Your task to perform on an android device: open app "Walmart Shopping & Grocery" (install if not already installed) and go to login screen Image 0: 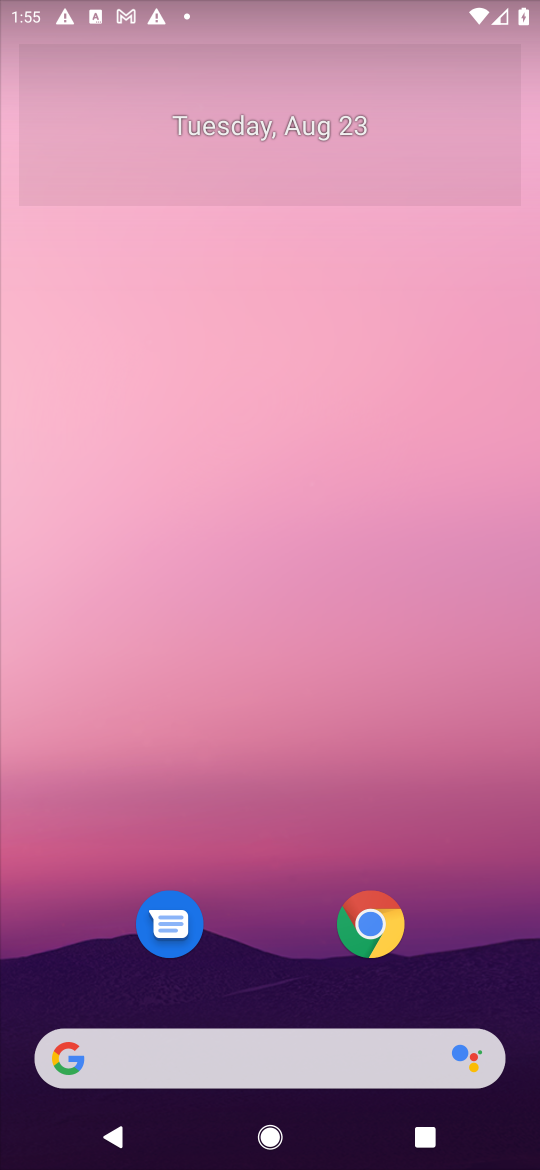
Step 0: press home button
Your task to perform on an android device: open app "Walmart Shopping & Grocery" (install if not already installed) and go to login screen Image 1: 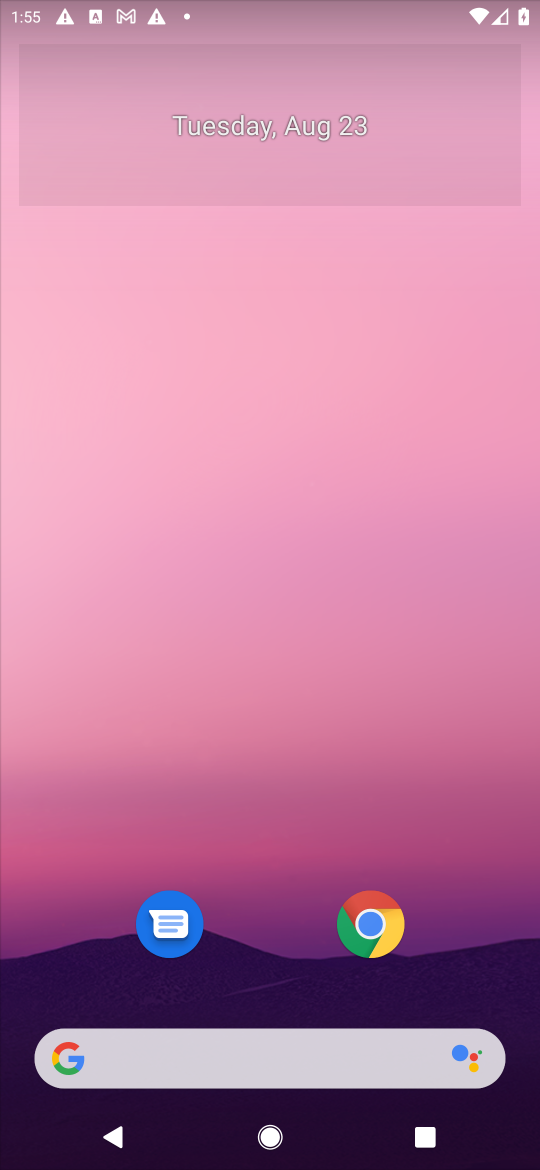
Step 1: drag from (457, 979) to (471, 167)
Your task to perform on an android device: open app "Walmart Shopping & Grocery" (install if not already installed) and go to login screen Image 2: 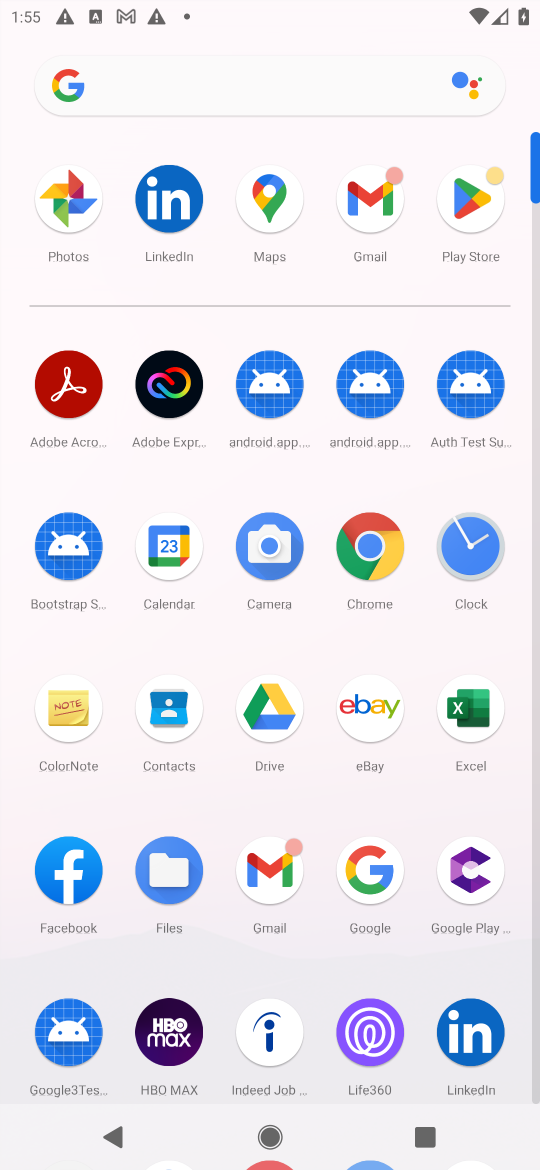
Step 2: click (465, 190)
Your task to perform on an android device: open app "Walmart Shopping & Grocery" (install if not already installed) and go to login screen Image 3: 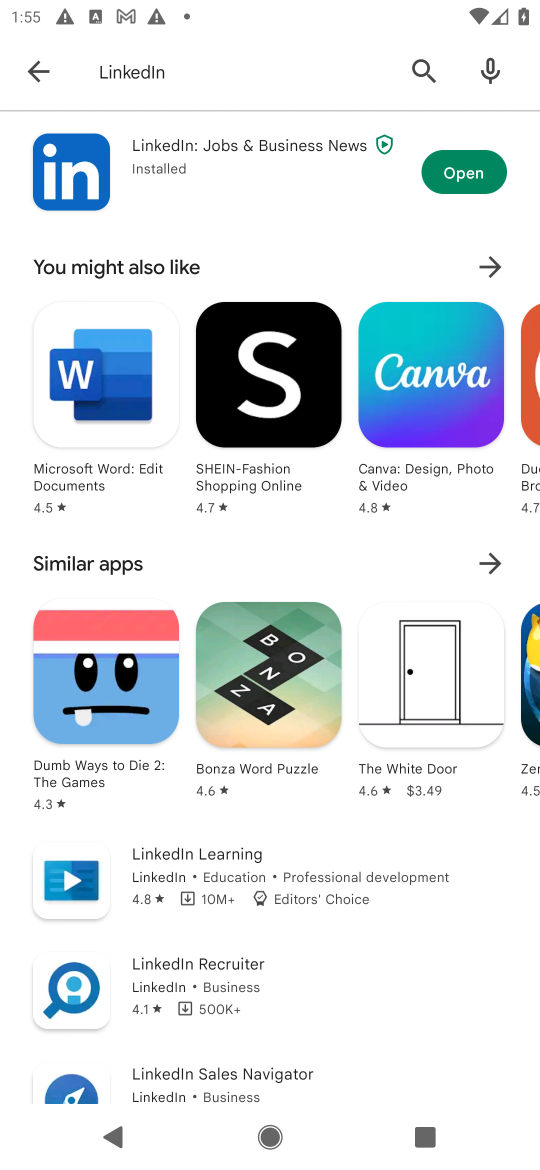
Step 3: press back button
Your task to perform on an android device: open app "Walmart Shopping & Grocery" (install if not already installed) and go to login screen Image 4: 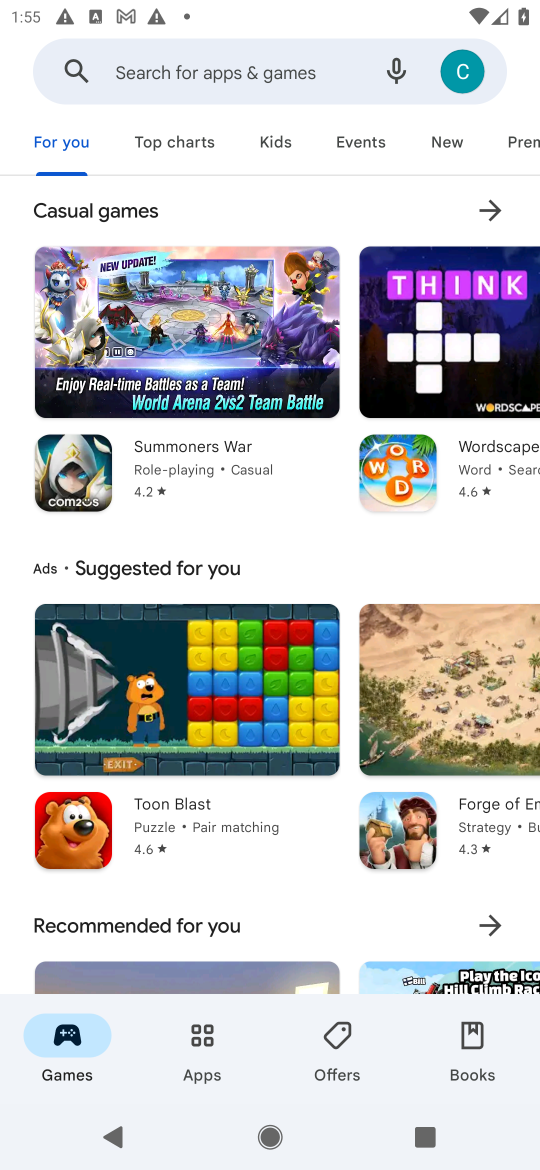
Step 4: click (207, 83)
Your task to perform on an android device: open app "Walmart Shopping & Grocery" (install if not already installed) and go to login screen Image 5: 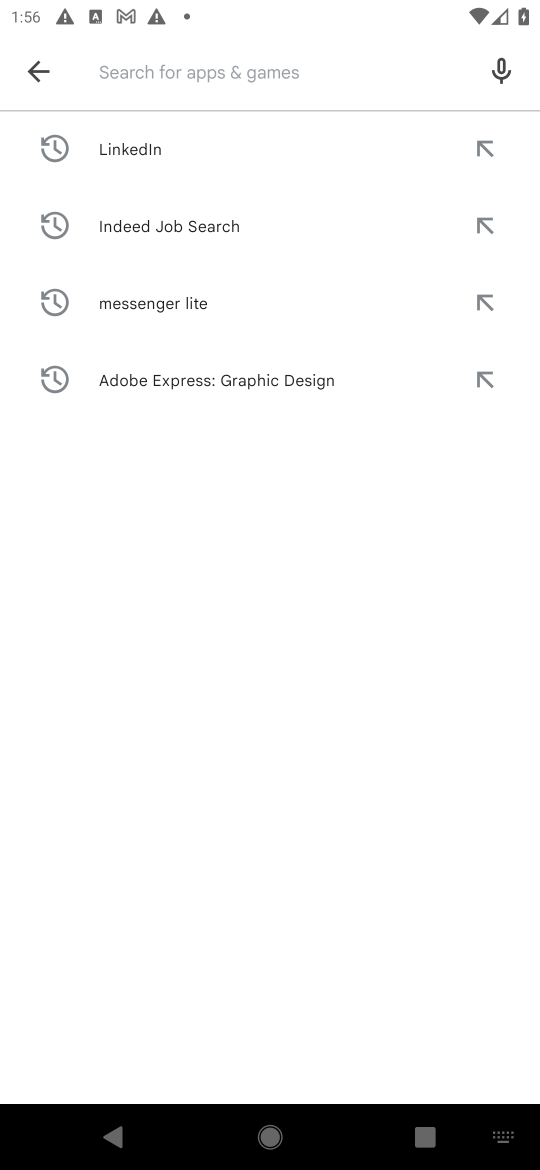
Step 5: type "Walmart Shopping & Grocery"
Your task to perform on an android device: open app "Walmart Shopping & Grocery" (install if not already installed) and go to login screen Image 6: 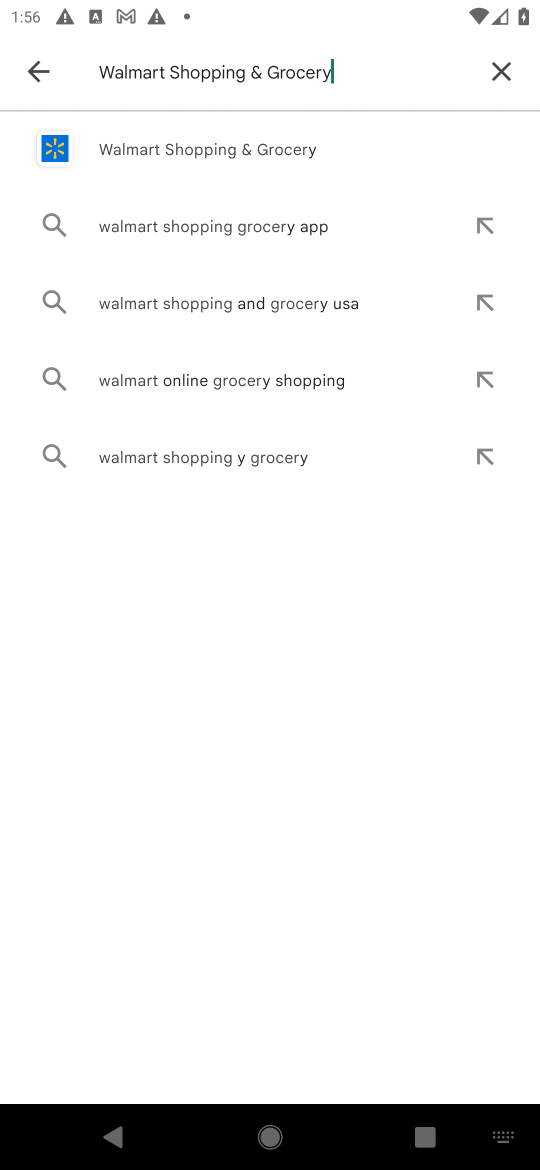
Step 6: press enter
Your task to perform on an android device: open app "Walmart Shopping & Grocery" (install if not already installed) and go to login screen Image 7: 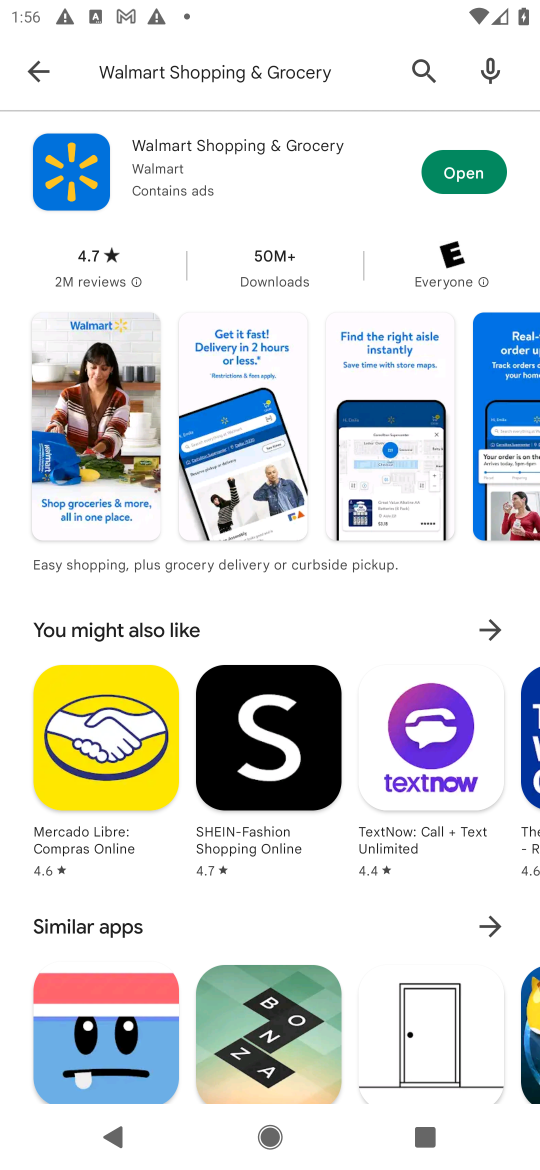
Step 7: click (468, 160)
Your task to perform on an android device: open app "Walmart Shopping & Grocery" (install if not already installed) and go to login screen Image 8: 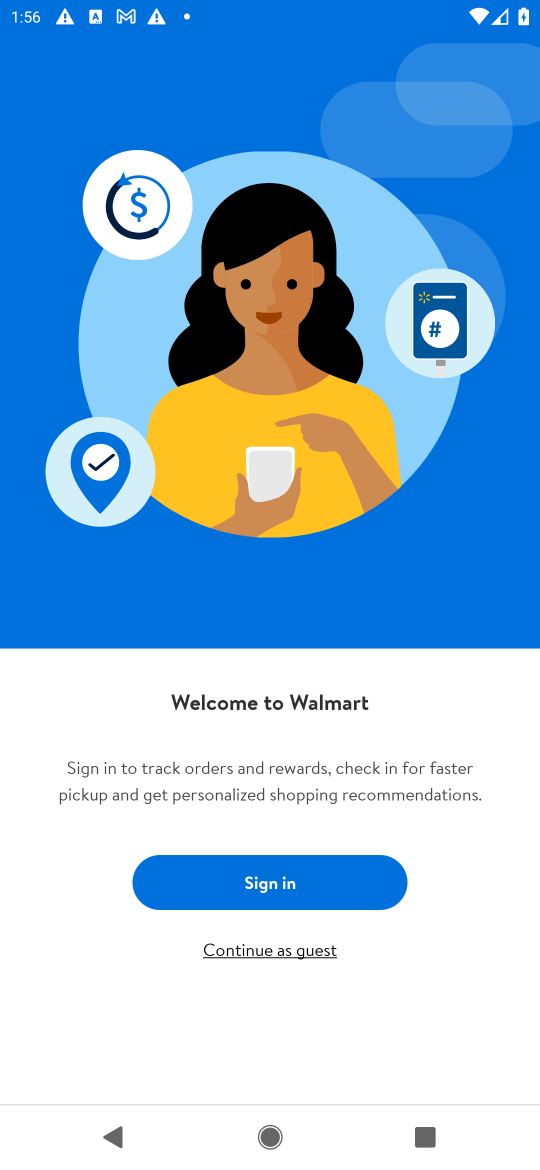
Step 8: task complete